Your task to perform on an android device: Show me recent news Image 0: 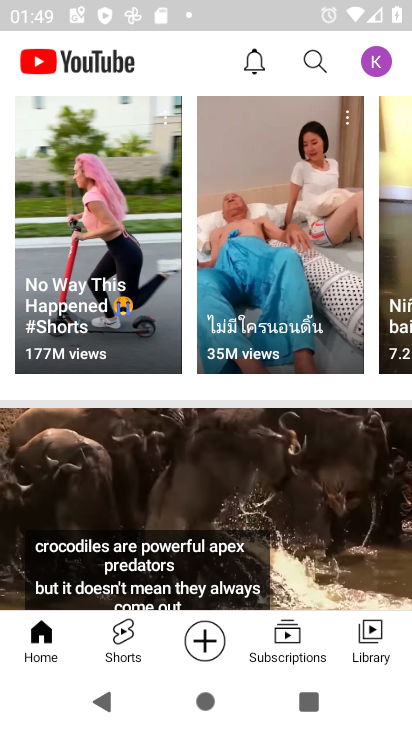
Step 0: press home button
Your task to perform on an android device: Show me recent news Image 1: 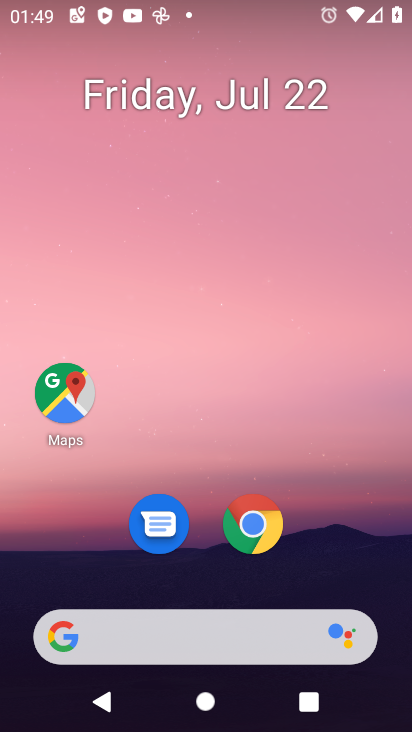
Step 1: click (146, 640)
Your task to perform on an android device: Show me recent news Image 2: 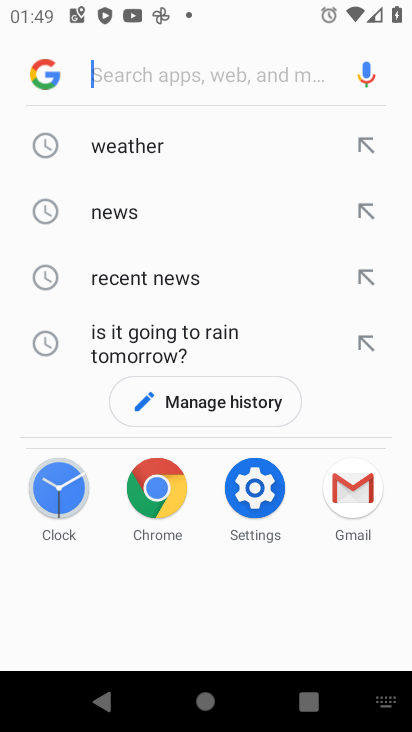
Step 2: click (124, 216)
Your task to perform on an android device: Show me recent news Image 3: 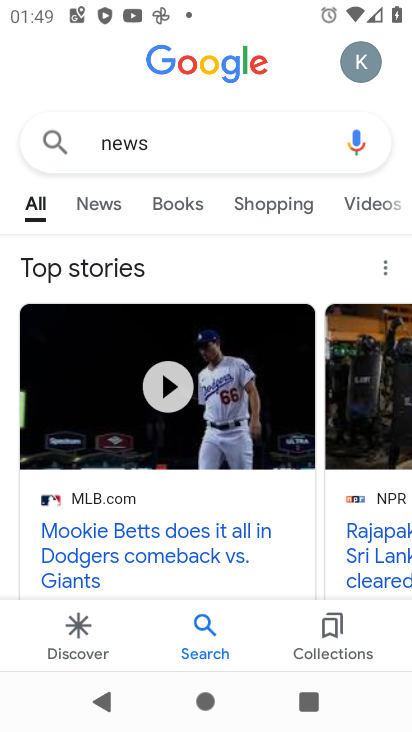
Step 3: click (90, 205)
Your task to perform on an android device: Show me recent news Image 4: 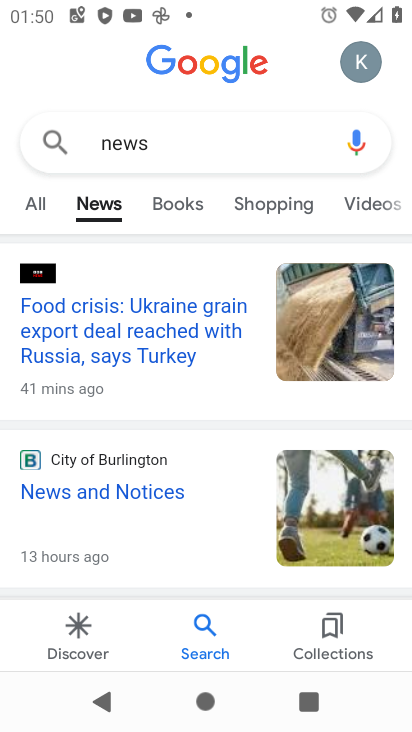
Step 4: task complete